Your task to perform on an android device: toggle notifications settings in the gmail app Image 0: 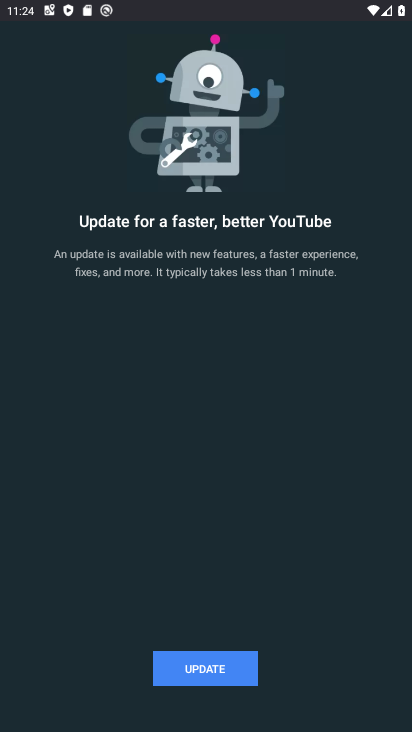
Step 0: press home button
Your task to perform on an android device: toggle notifications settings in the gmail app Image 1: 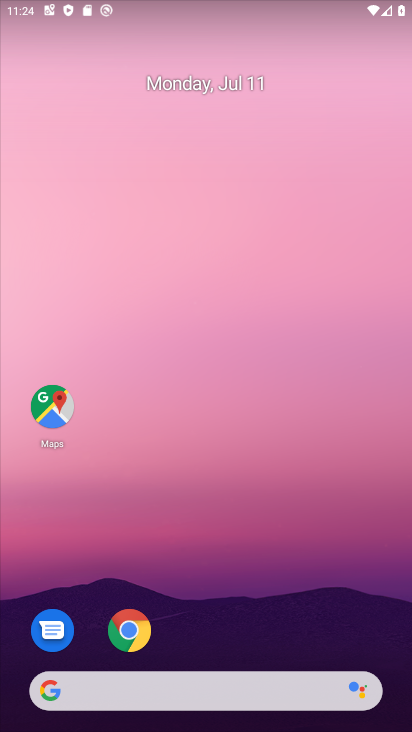
Step 1: drag from (205, 636) to (271, 82)
Your task to perform on an android device: toggle notifications settings in the gmail app Image 2: 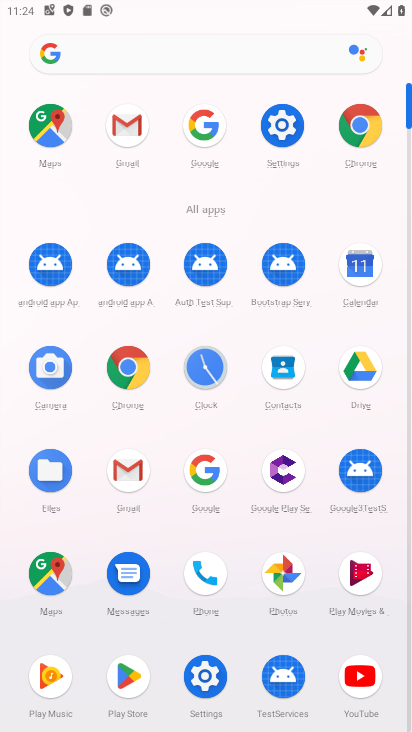
Step 2: click (122, 124)
Your task to perform on an android device: toggle notifications settings in the gmail app Image 3: 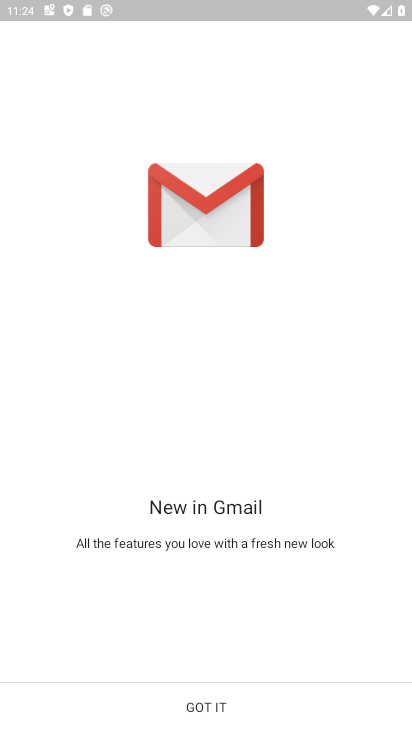
Step 3: click (204, 699)
Your task to perform on an android device: toggle notifications settings in the gmail app Image 4: 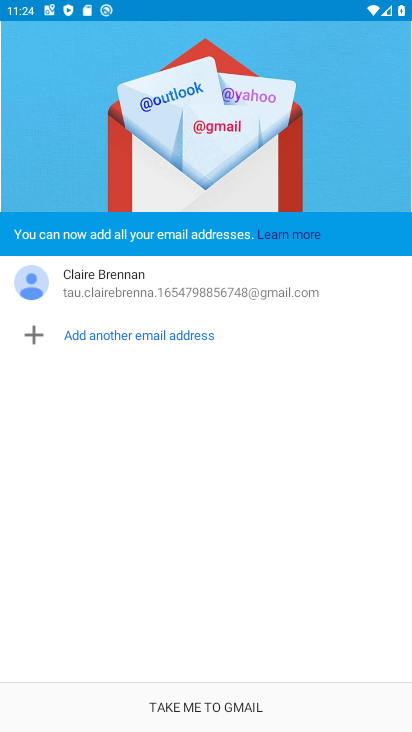
Step 4: click (205, 706)
Your task to perform on an android device: toggle notifications settings in the gmail app Image 5: 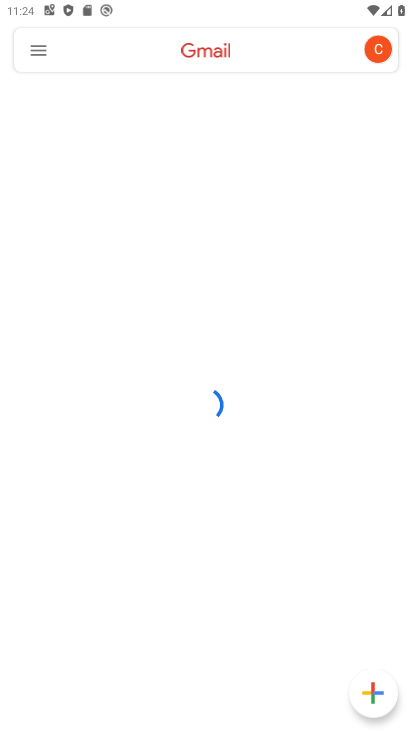
Step 5: click (36, 48)
Your task to perform on an android device: toggle notifications settings in the gmail app Image 6: 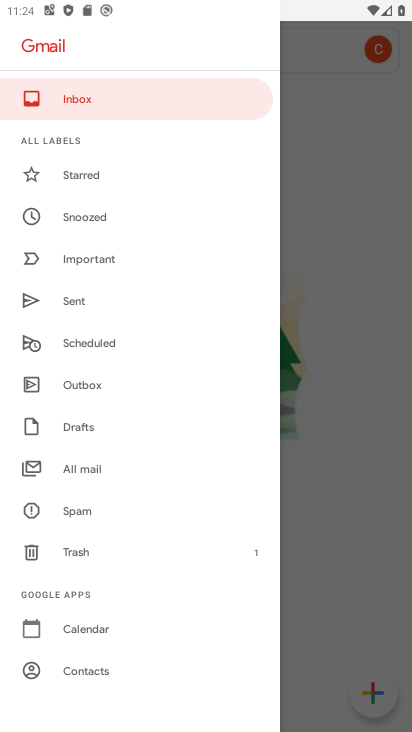
Step 6: drag from (102, 660) to (112, 352)
Your task to perform on an android device: toggle notifications settings in the gmail app Image 7: 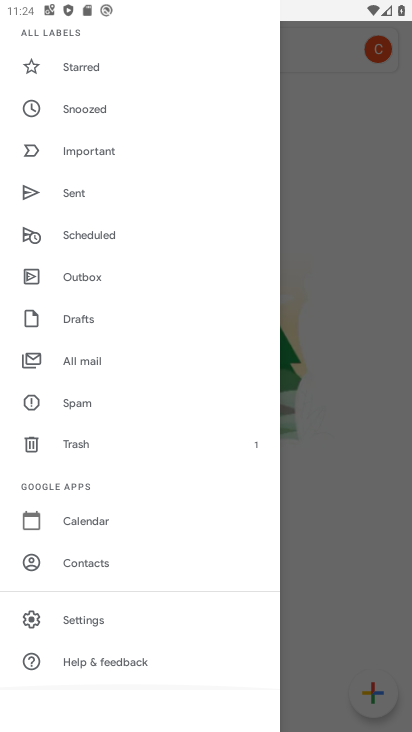
Step 7: click (85, 620)
Your task to perform on an android device: toggle notifications settings in the gmail app Image 8: 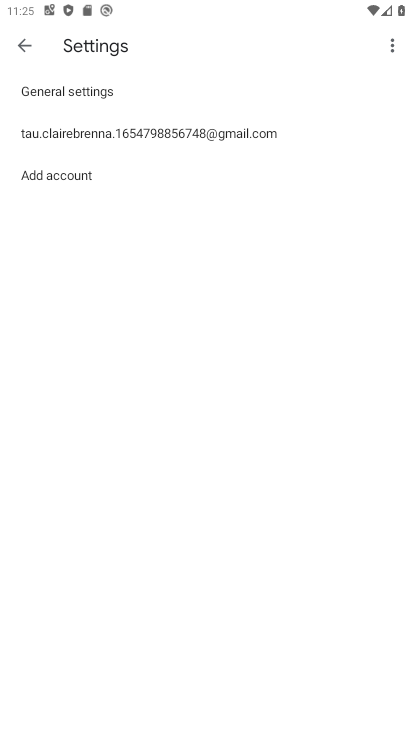
Step 8: click (82, 132)
Your task to perform on an android device: toggle notifications settings in the gmail app Image 9: 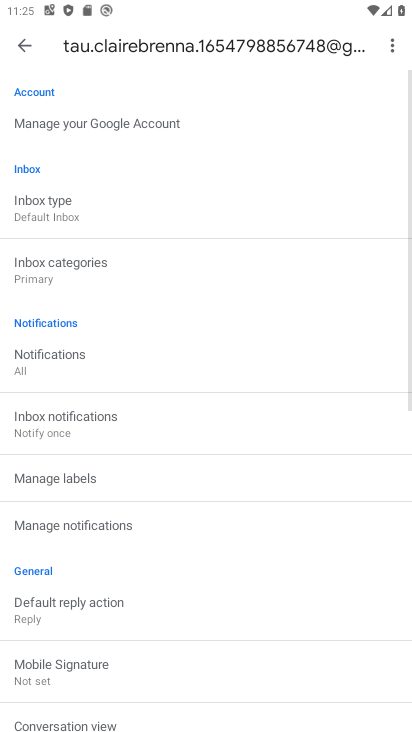
Step 9: click (77, 369)
Your task to perform on an android device: toggle notifications settings in the gmail app Image 10: 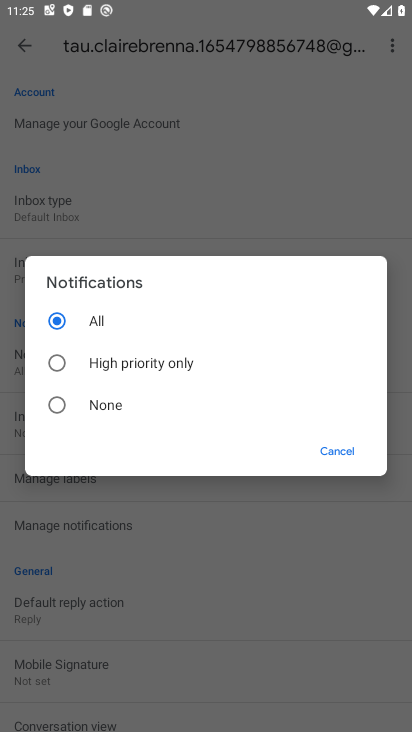
Step 10: click (55, 403)
Your task to perform on an android device: toggle notifications settings in the gmail app Image 11: 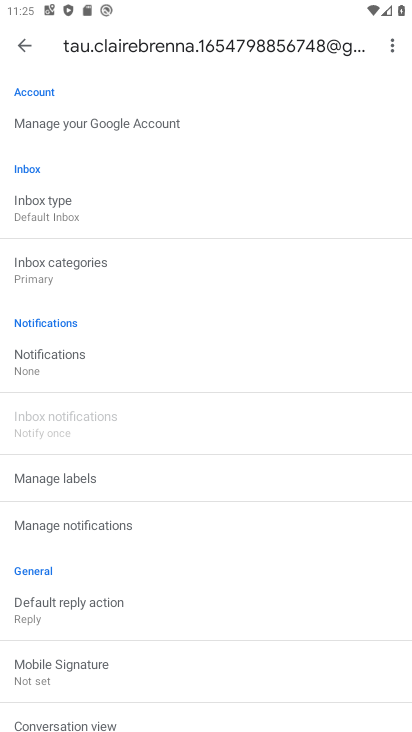
Step 11: task complete